Your task to perform on an android device: Go to Reddit.com Image 0: 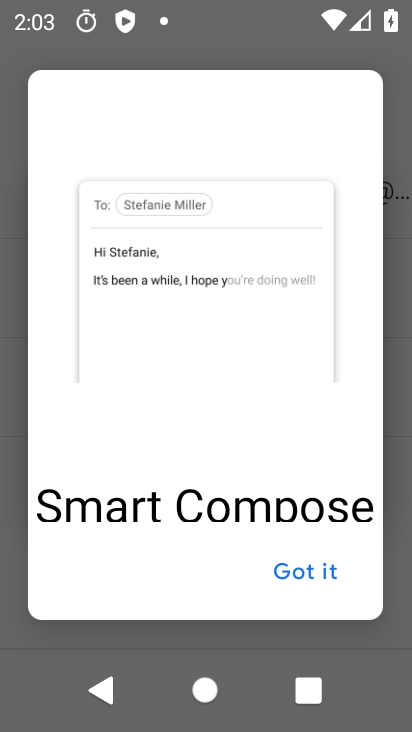
Step 0: press home button
Your task to perform on an android device: Go to Reddit.com Image 1: 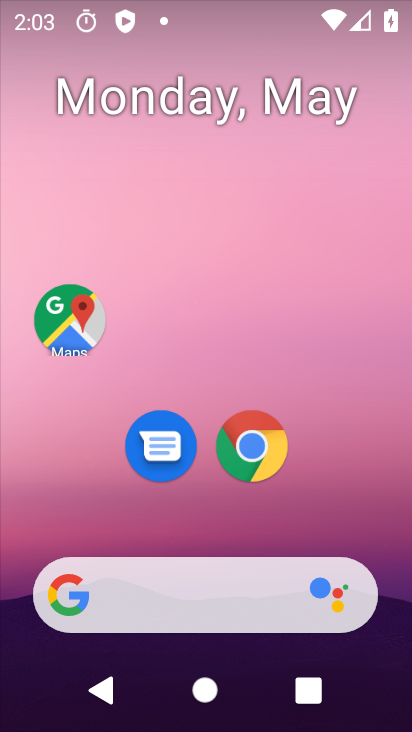
Step 1: click (250, 470)
Your task to perform on an android device: Go to Reddit.com Image 2: 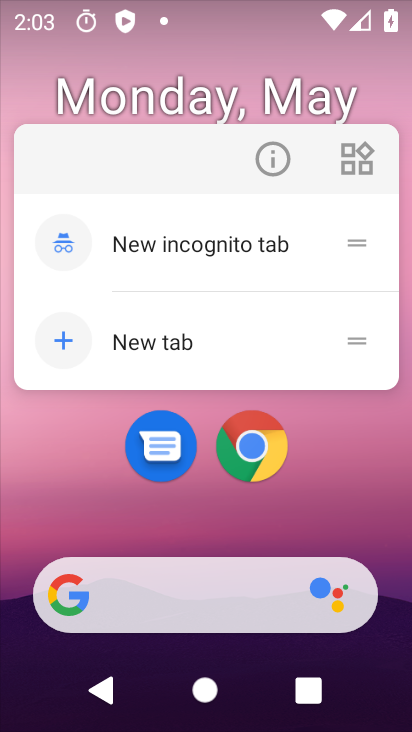
Step 2: click (267, 454)
Your task to perform on an android device: Go to Reddit.com Image 3: 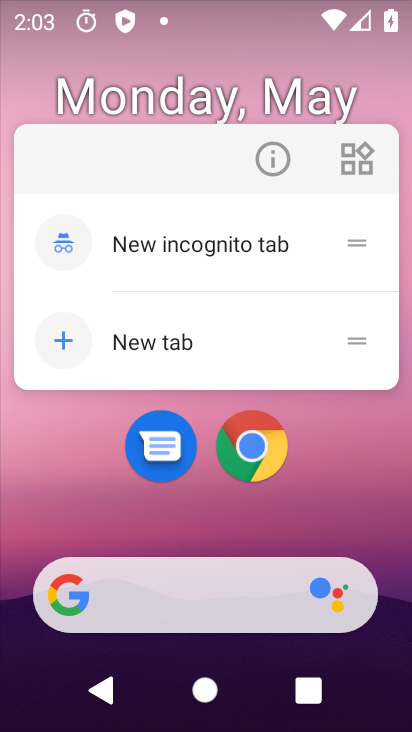
Step 3: click (267, 454)
Your task to perform on an android device: Go to Reddit.com Image 4: 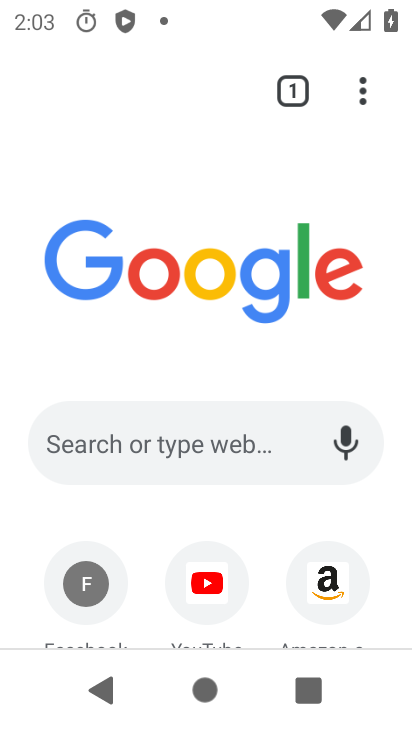
Step 4: click (247, 451)
Your task to perform on an android device: Go to Reddit.com Image 5: 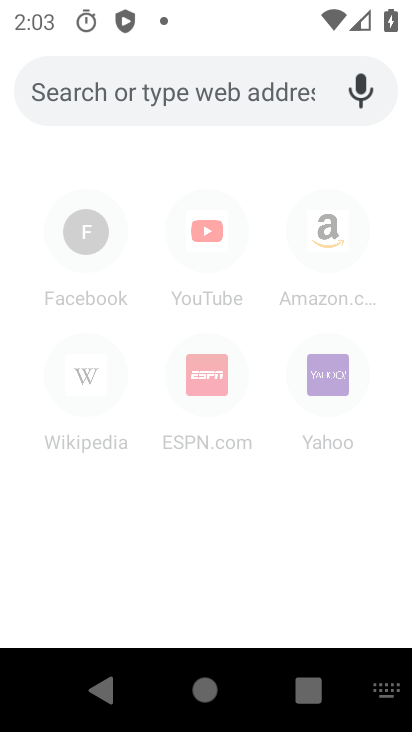
Step 5: type "reddit.com"
Your task to perform on an android device: Go to Reddit.com Image 6: 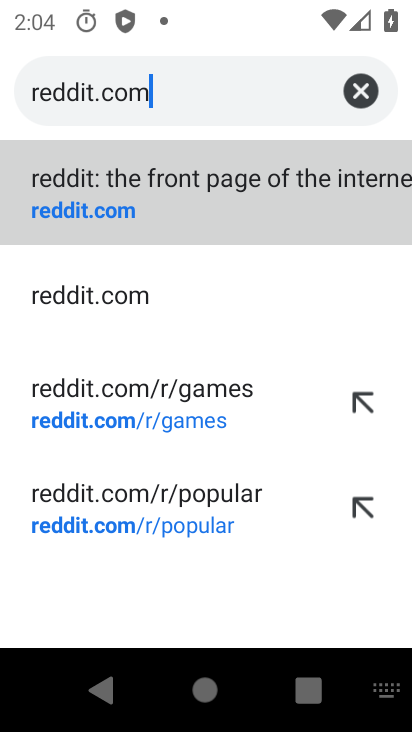
Step 6: click (116, 246)
Your task to perform on an android device: Go to Reddit.com Image 7: 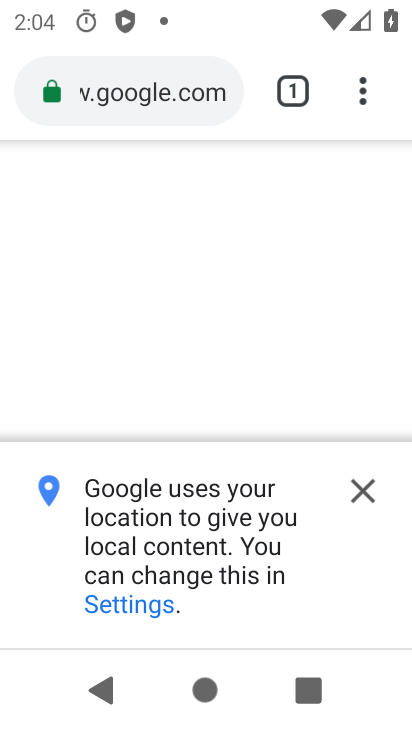
Step 7: click (359, 465)
Your task to perform on an android device: Go to Reddit.com Image 8: 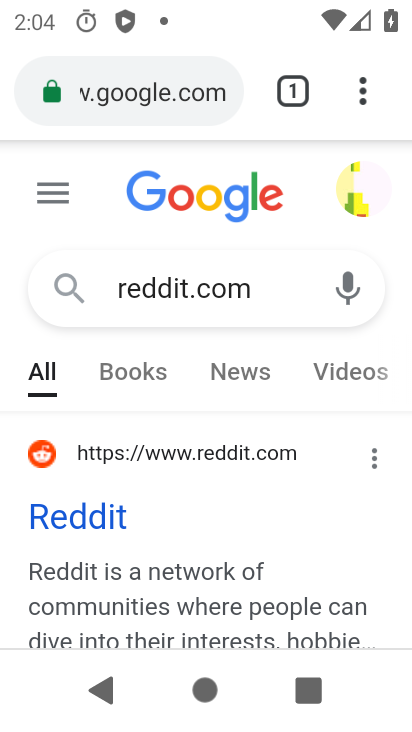
Step 8: click (97, 514)
Your task to perform on an android device: Go to Reddit.com Image 9: 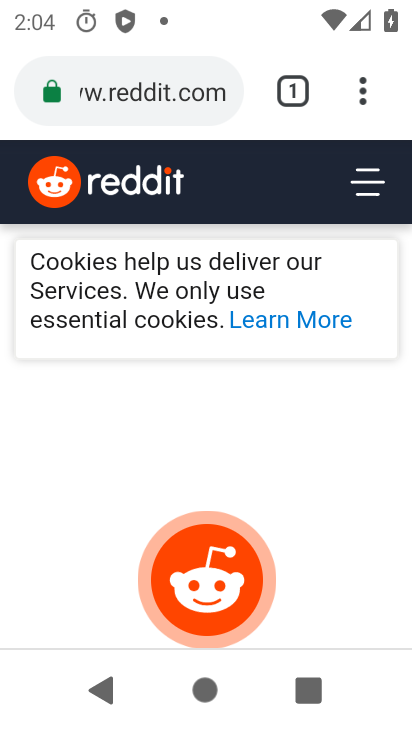
Step 9: task complete